Your task to perform on an android device: Open Google Maps and go to "Timeline" Image 0: 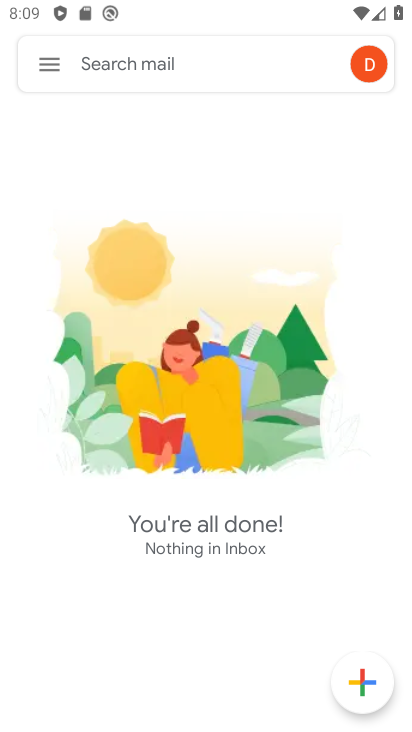
Step 0: press home button
Your task to perform on an android device: Open Google Maps and go to "Timeline" Image 1: 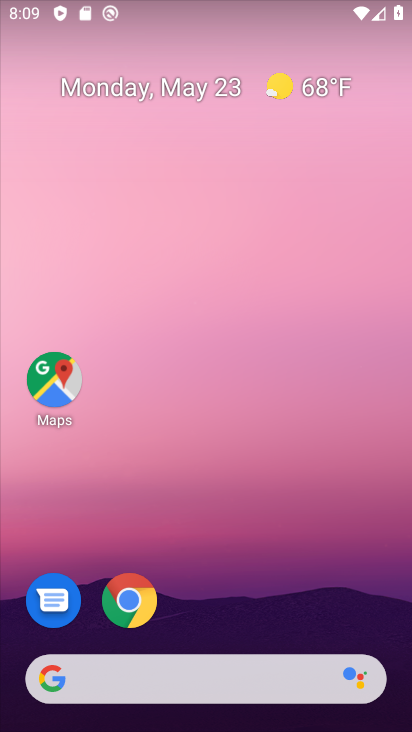
Step 1: click (54, 369)
Your task to perform on an android device: Open Google Maps and go to "Timeline" Image 2: 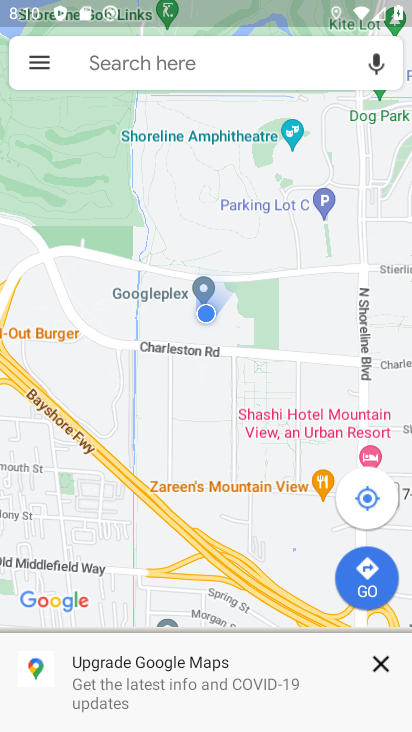
Step 2: click (371, 657)
Your task to perform on an android device: Open Google Maps and go to "Timeline" Image 3: 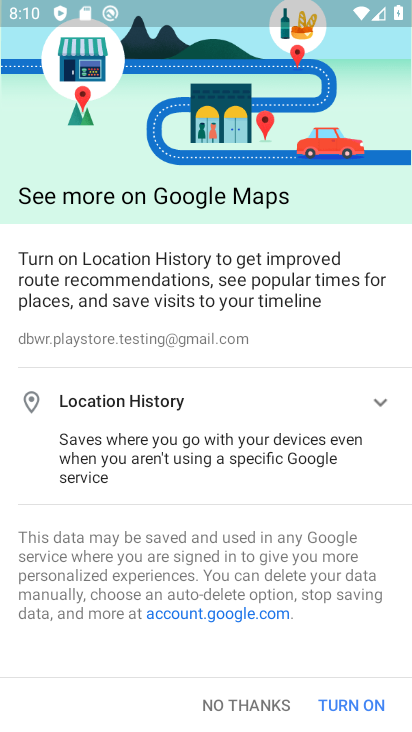
Step 3: click (233, 703)
Your task to perform on an android device: Open Google Maps and go to "Timeline" Image 4: 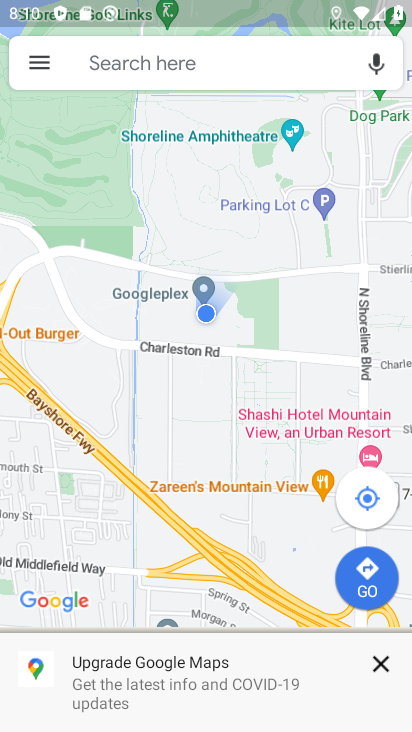
Step 4: click (43, 83)
Your task to perform on an android device: Open Google Maps and go to "Timeline" Image 5: 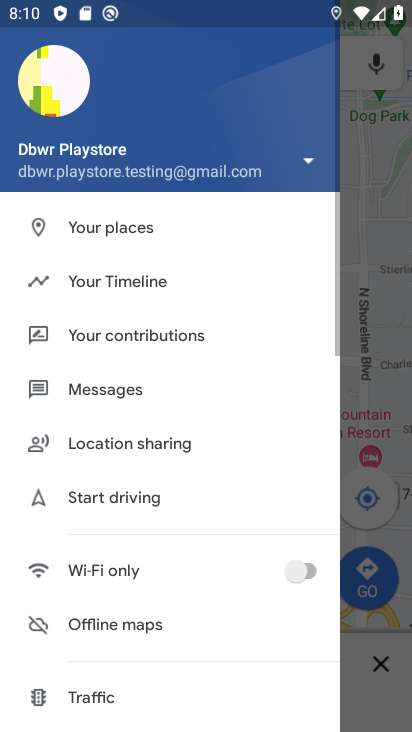
Step 5: click (141, 282)
Your task to perform on an android device: Open Google Maps and go to "Timeline" Image 6: 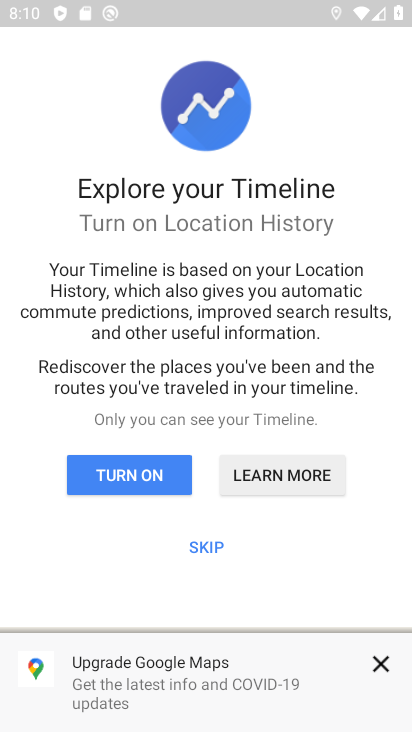
Step 6: task complete